Your task to perform on an android device: What is the recent news? Image 0: 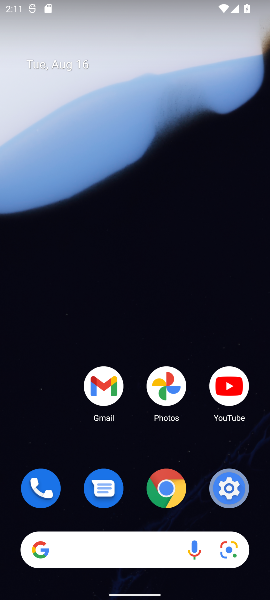
Step 0: drag from (143, 579) to (152, 421)
Your task to perform on an android device: What is the recent news? Image 1: 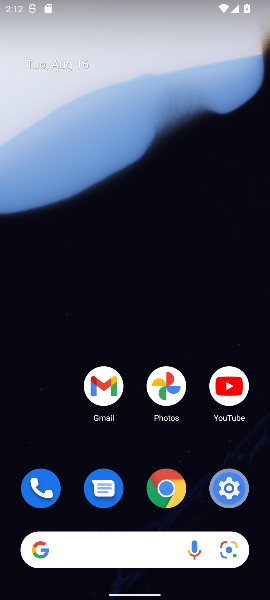
Step 1: click (119, 546)
Your task to perform on an android device: What is the recent news? Image 2: 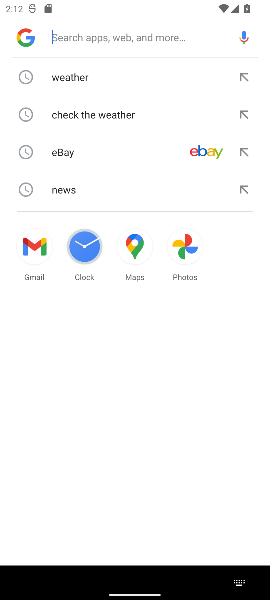
Step 2: type "What is the recent news?"
Your task to perform on an android device: What is the recent news? Image 3: 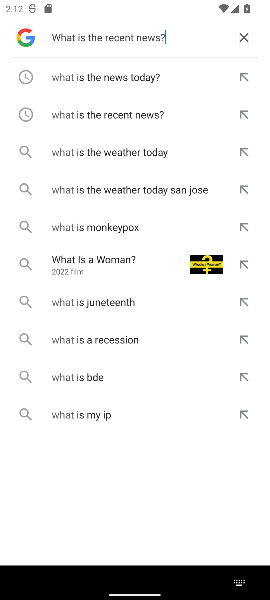
Step 3: press enter
Your task to perform on an android device: What is the recent news? Image 4: 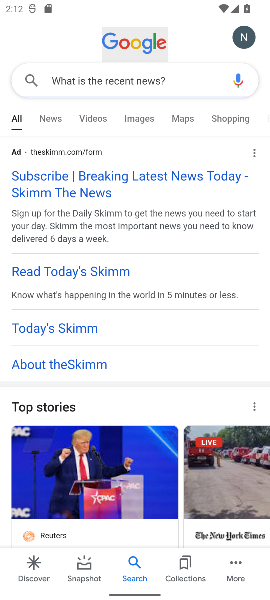
Step 4: task complete